Your task to perform on an android device: Open settings on Google Maps Image 0: 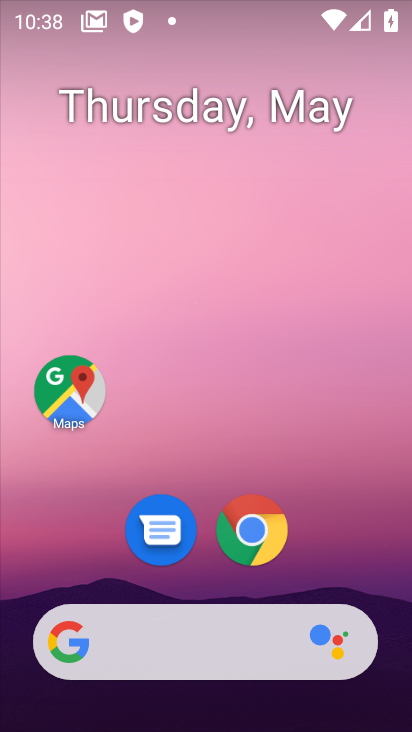
Step 0: click (71, 392)
Your task to perform on an android device: Open settings on Google Maps Image 1: 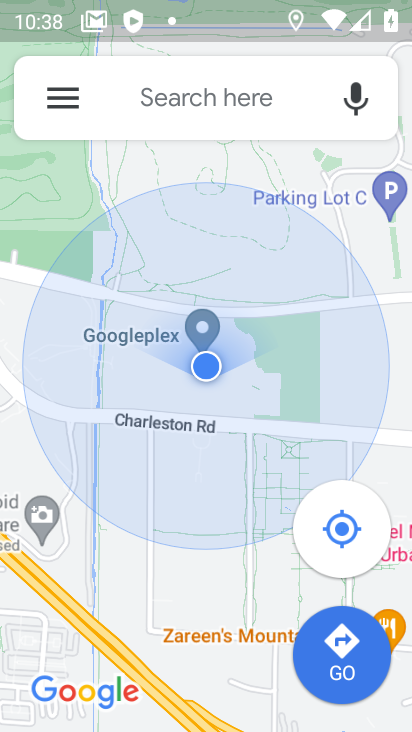
Step 1: click (53, 100)
Your task to perform on an android device: Open settings on Google Maps Image 2: 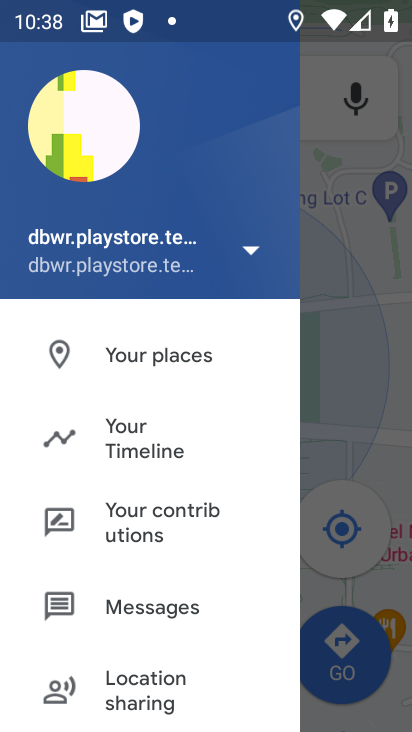
Step 2: drag from (184, 566) to (172, 331)
Your task to perform on an android device: Open settings on Google Maps Image 3: 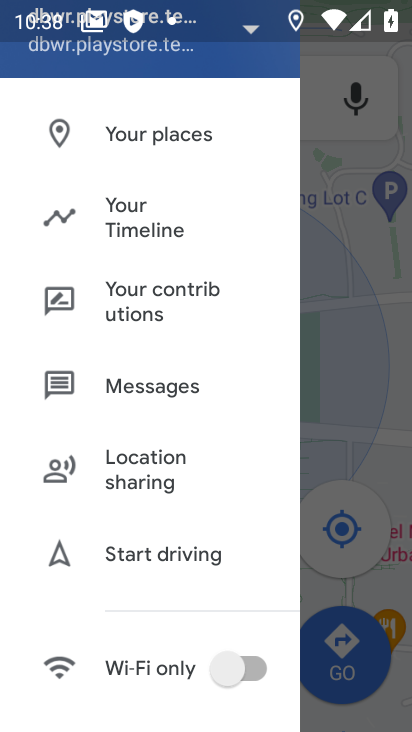
Step 3: drag from (142, 511) to (132, 326)
Your task to perform on an android device: Open settings on Google Maps Image 4: 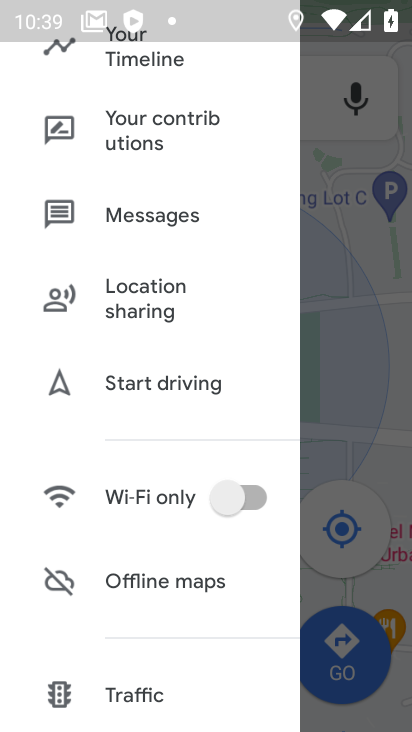
Step 4: drag from (140, 635) to (154, 317)
Your task to perform on an android device: Open settings on Google Maps Image 5: 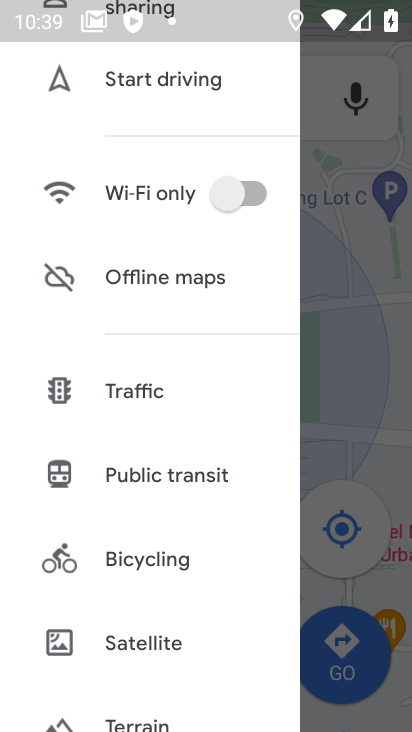
Step 5: drag from (145, 590) to (188, 241)
Your task to perform on an android device: Open settings on Google Maps Image 6: 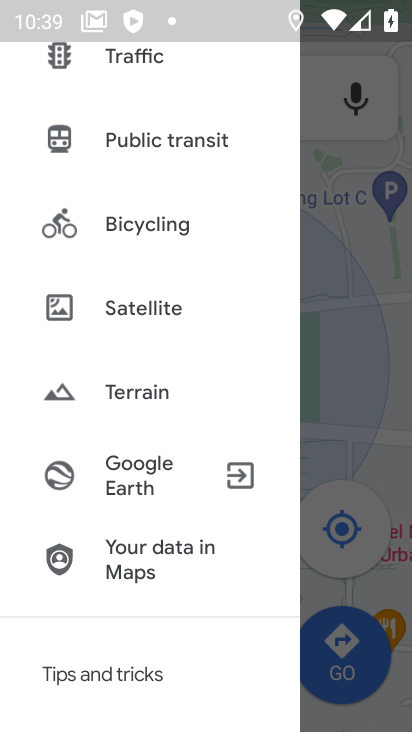
Step 6: drag from (145, 620) to (175, 279)
Your task to perform on an android device: Open settings on Google Maps Image 7: 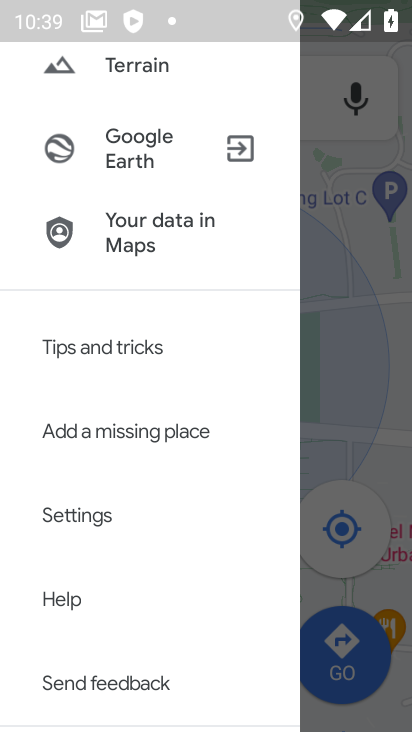
Step 7: click (79, 510)
Your task to perform on an android device: Open settings on Google Maps Image 8: 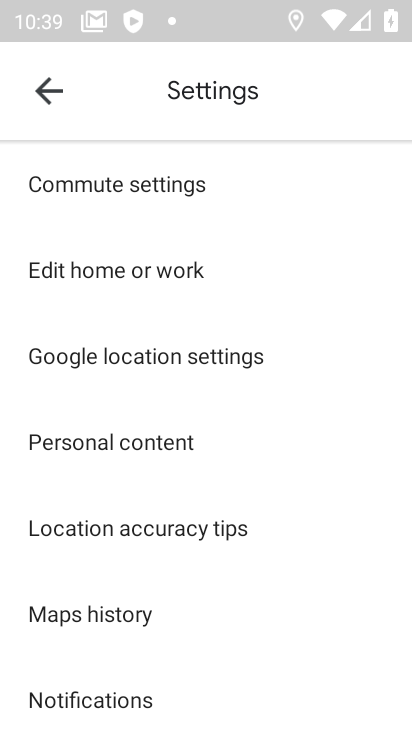
Step 8: task complete